Your task to perform on an android device: turn off location history Image 0: 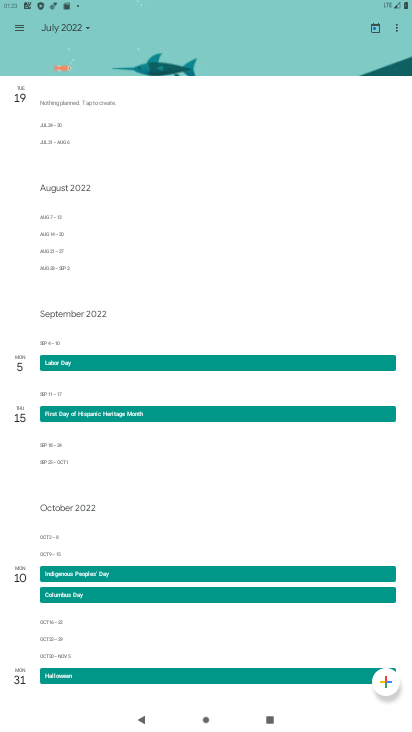
Step 0: press home button
Your task to perform on an android device: turn off location history Image 1: 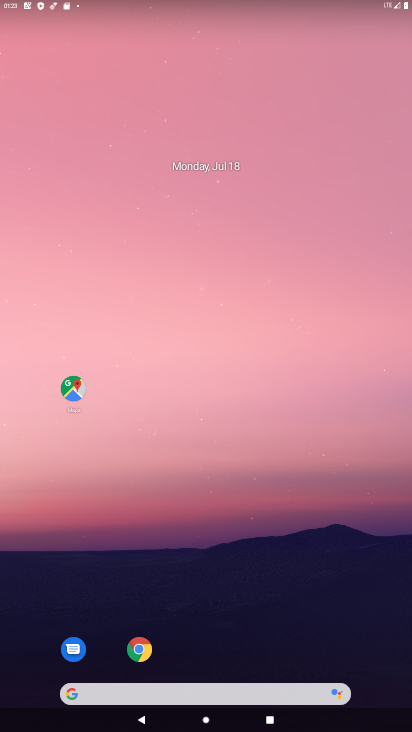
Step 1: drag from (220, 529) to (276, 10)
Your task to perform on an android device: turn off location history Image 2: 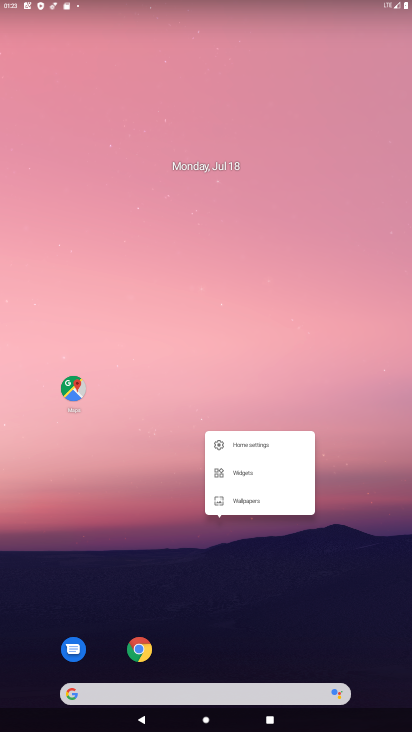
Step 2: click (223, 658)
Your task to perform on an android device: turn off location history Image 3: 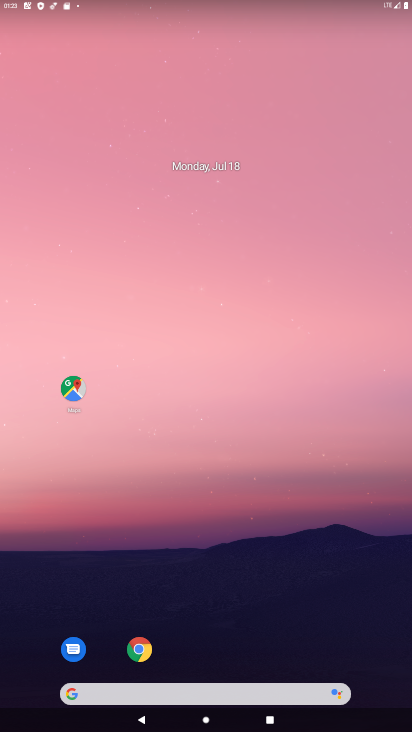
Step 3: drag from (223, 658) to (218, 187)
Your task to perform on an android device: turn off location history Image 4: 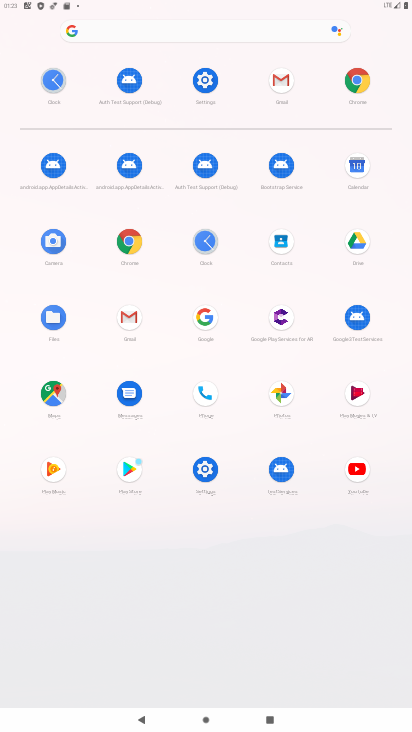
Step 4: click (209, 80)
Your task to perform on an android device: turn off location history Image 5: 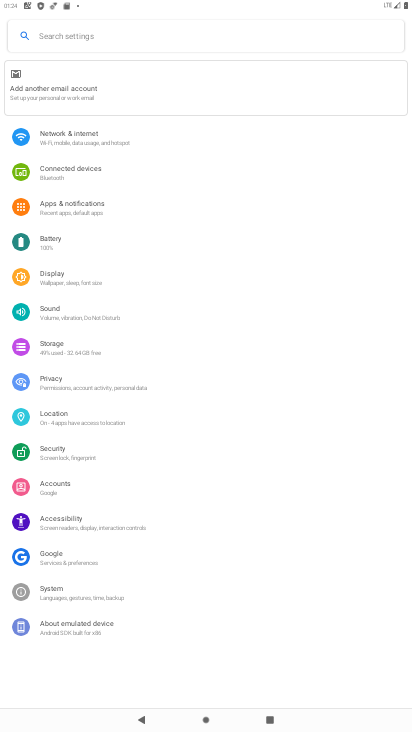
Step 5: click (49, 419)
Your task to perform on an android device: turn off location history Image 6: 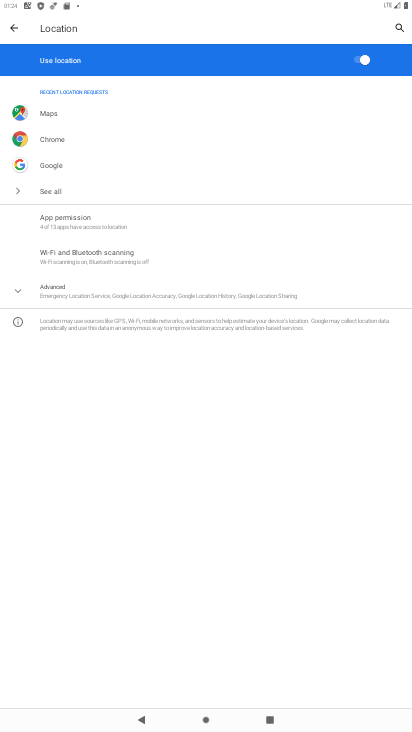
Step 6: click (154, 289)
Your task to perform on an android device: turn off location history Image 7: 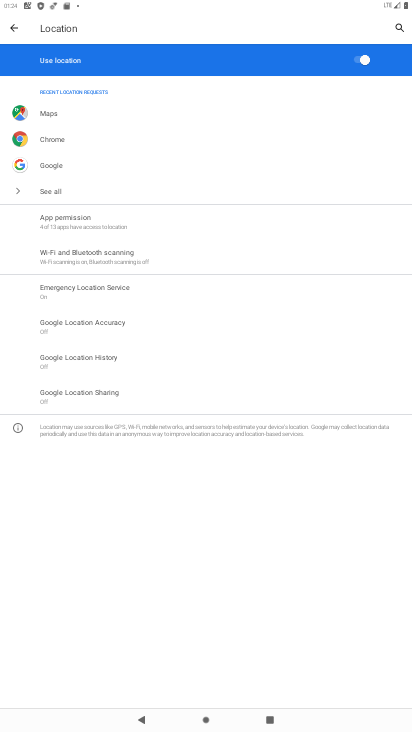
Step 7: click (74, 358)
Your task to perform on an android device: turn off location history Image 8: 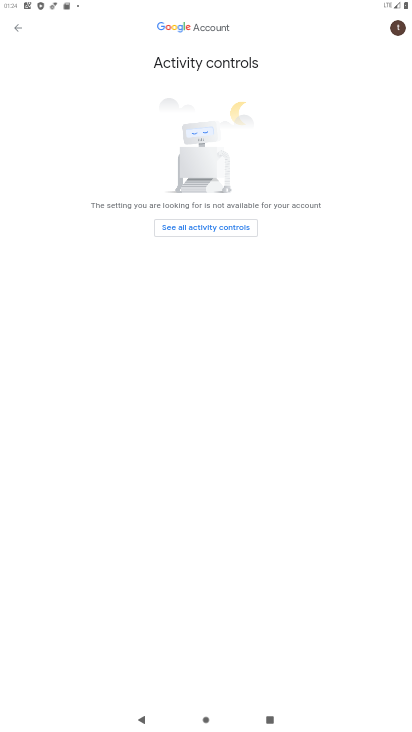
Step 8: click (195, 228)
Your task to perform on an android device: turn off location history Image 9: 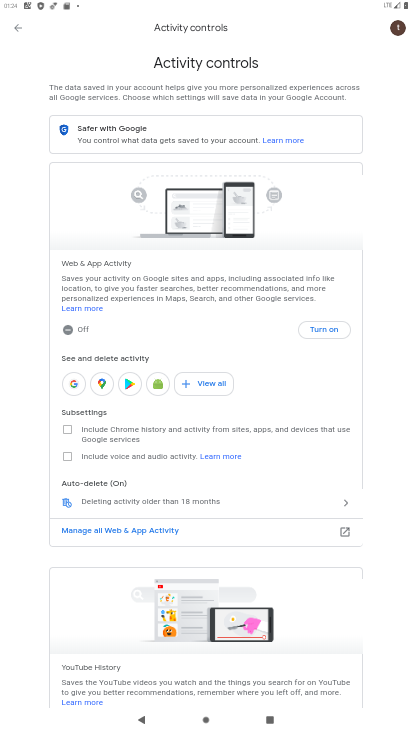
Step 9: task complete